Your task to perform on an android device: set the timer Image 0: 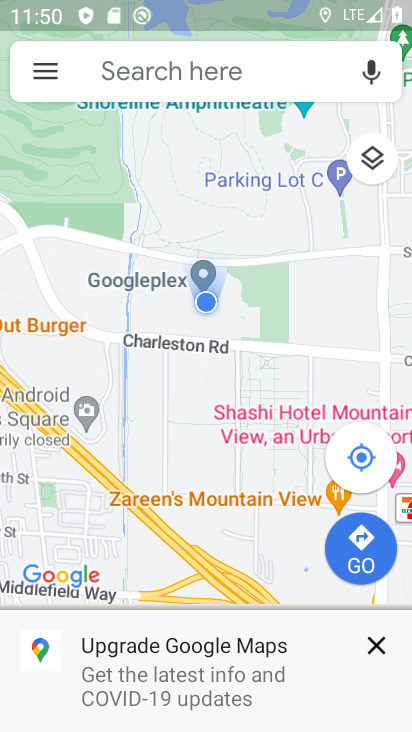
Step 0: press home button
Your task to perform on an android device: set the timer Image 1: 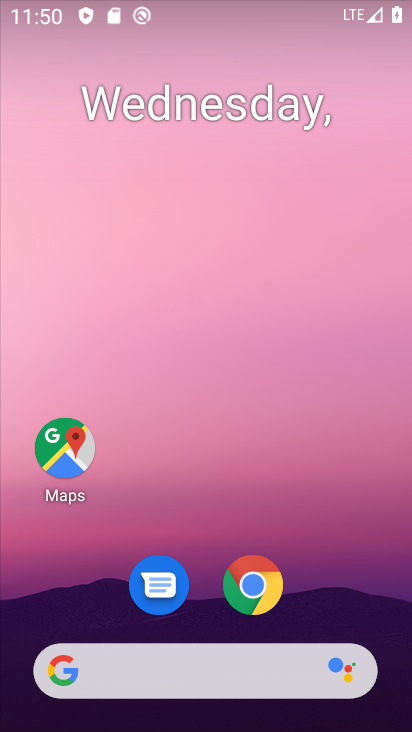
Step 1: drag from (214, 461) to (233, 26)
Your task to perform on an android device: set the timer Image 2: 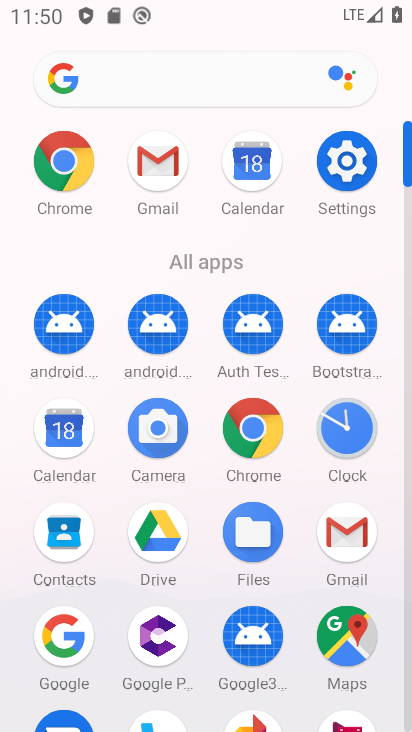
Step 2: click (337, 430)
Your task to perform on an android device: set the timer Image 3: 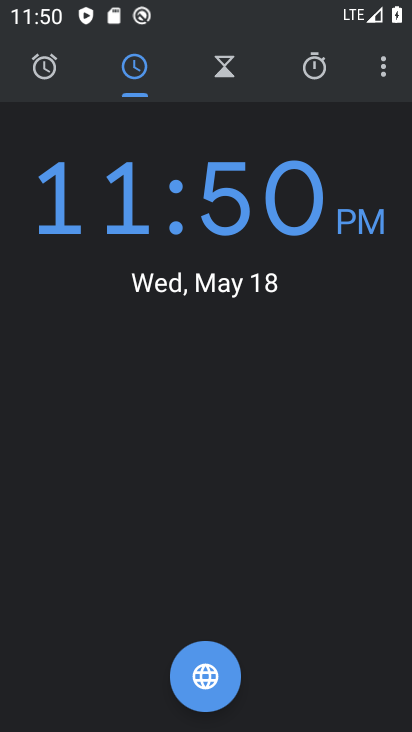
Step 3: click (231, 62)
Your task to perform on an android device: set the timer Image 4: 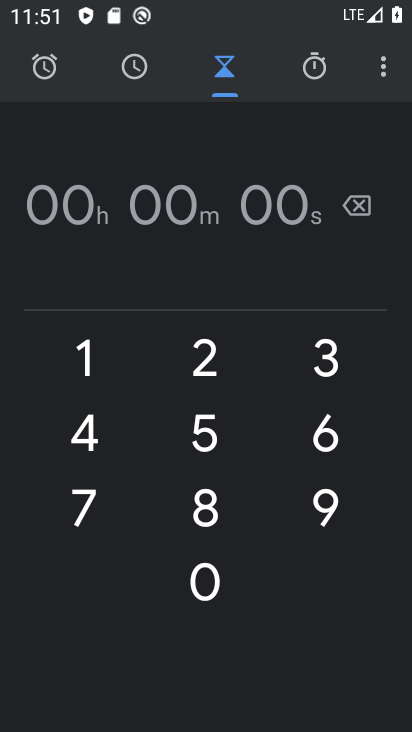
Step 4: task complete